Your task to perform on an android device: Go to calendar. Show me events next week Image 0: 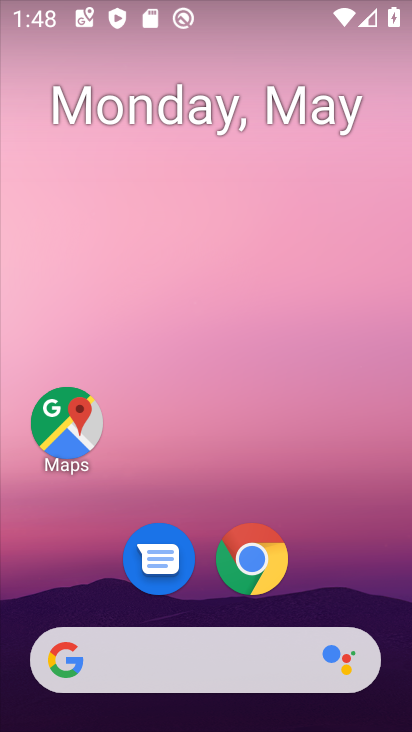
Step 0: drag from (244, 727) to (202, 174)
Your task to perform on an android device: Go to calendar. Show me events next week Image 1: 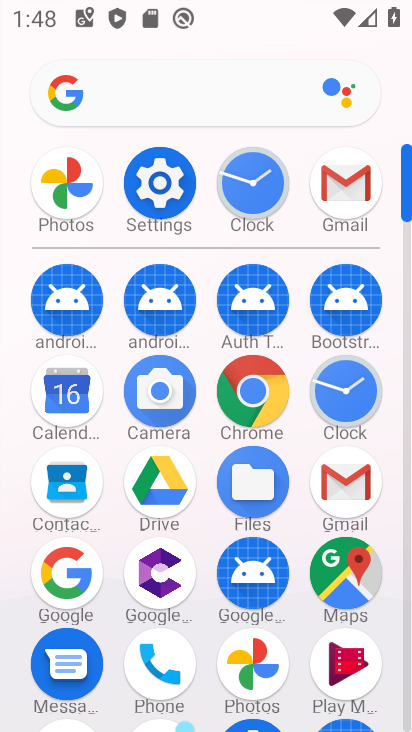
Step 1: click (47, 388)
Your task to perform on an android device: Go to calendar. Show me events next week Image 2: 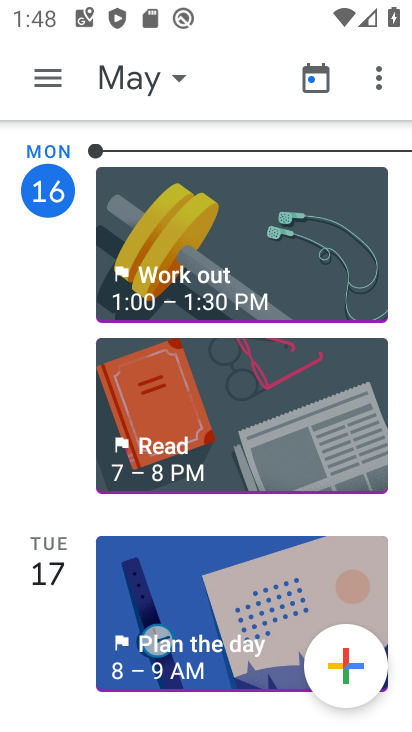
Step 2: task complete